Your task to perform on an android device: open app "PUBG MOBILE" (install if not already installed) and enter user name: "phenomenologically@gmail.com" and password: "artillery" Image 0: 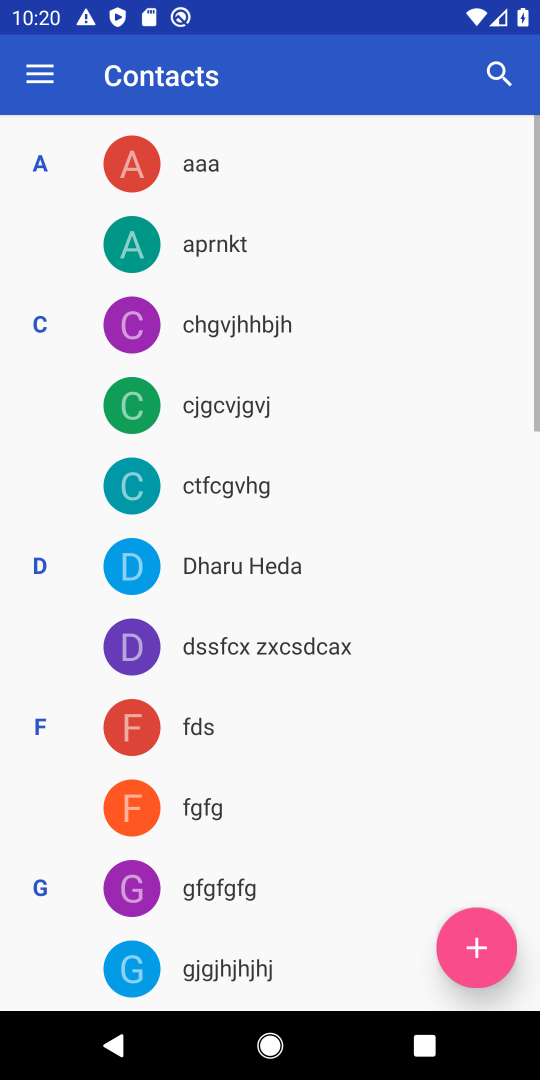
Step 0: press home button
Your task to perform on an android device: open app "PUBG MOBILE" (install if not already installed) and enter user name: "phenomenologically@gmail.com" and password: "artillery" Image 1: 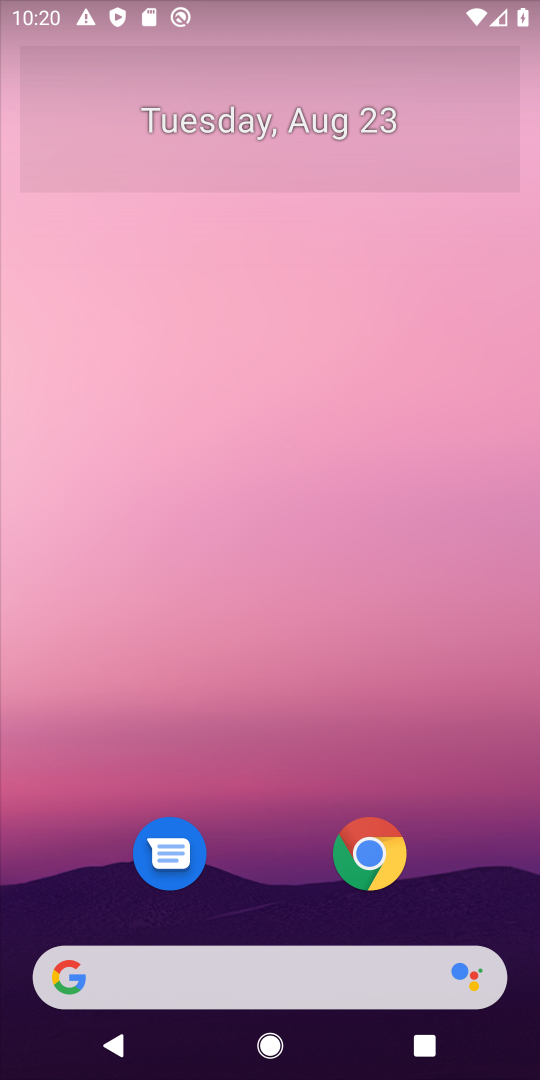
Step 1: drag from (302, 850) to (461, 150)
Your task to perform on an android device: open app "PUBG MOBILE" (install if not already installed) and enter user name: "phenomenologically@gmail.com" and password: "artillery" Image 2: 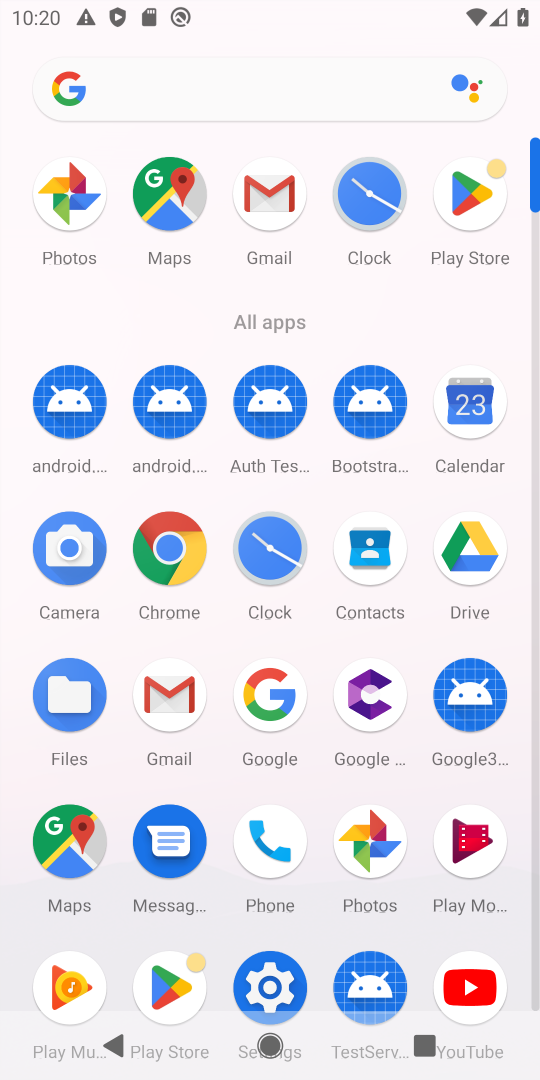
Step 2: click (440, 202)
Your task to perform on an android device: open app "PUBG MOBILE" (install if not already installed) and enter user name: "phenomenologically@gmail.com" and password: "artillery" Image 3: 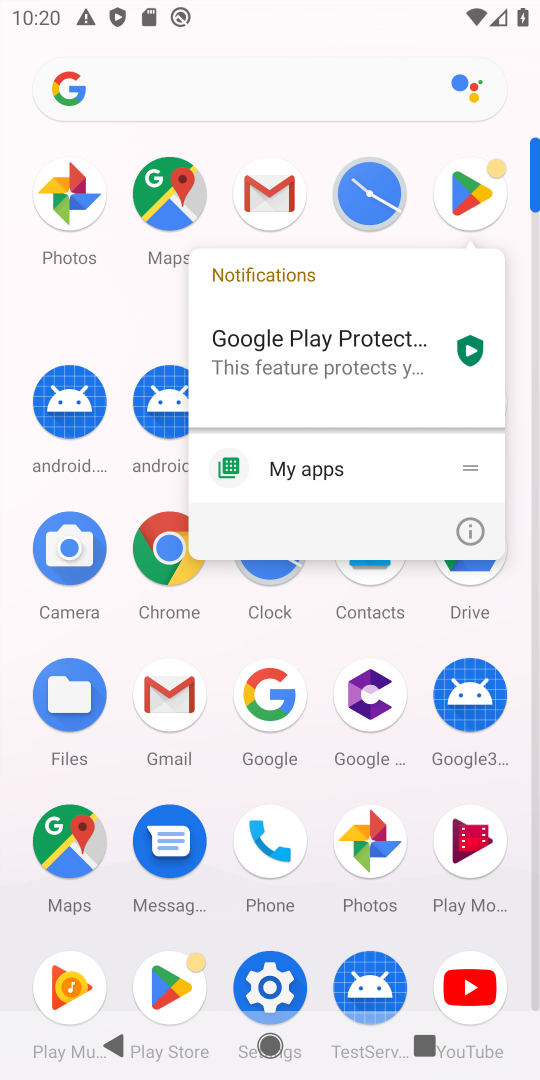
Step 3: click (446, 206)
Your task to perform on an android device: open app "PUBG MOBILE" (install if not already installed) and enter user name: "phenomenologically@gmail.com" and password: "artillery" Image 4: 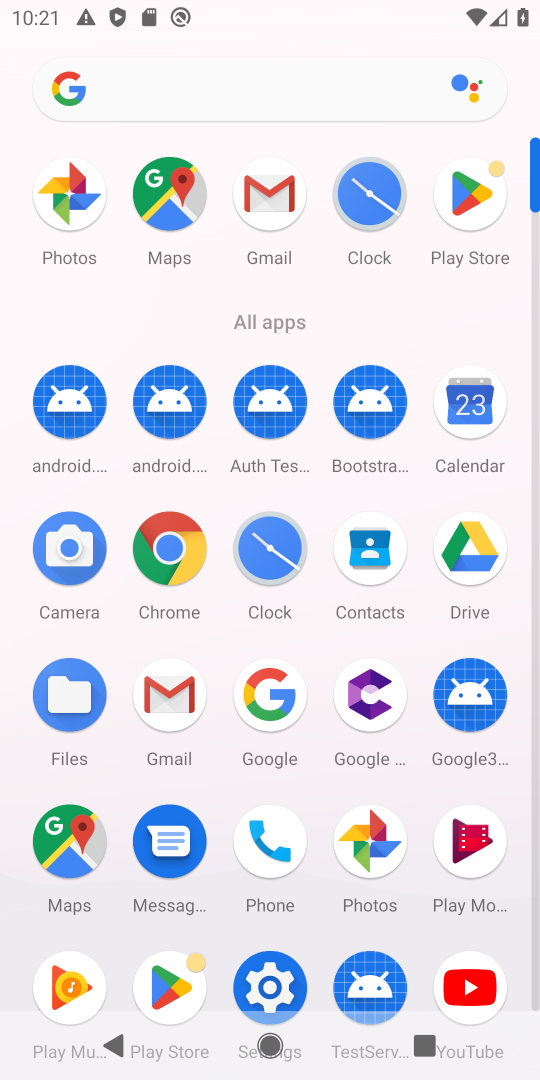
Step 4: click (458, 207)
Your task to perform on an android device: open app "PUBG MOBILE" (install if not already installed) and enter user name: "phenomenologically@gmail.com" and password: "artillery" Image 5: 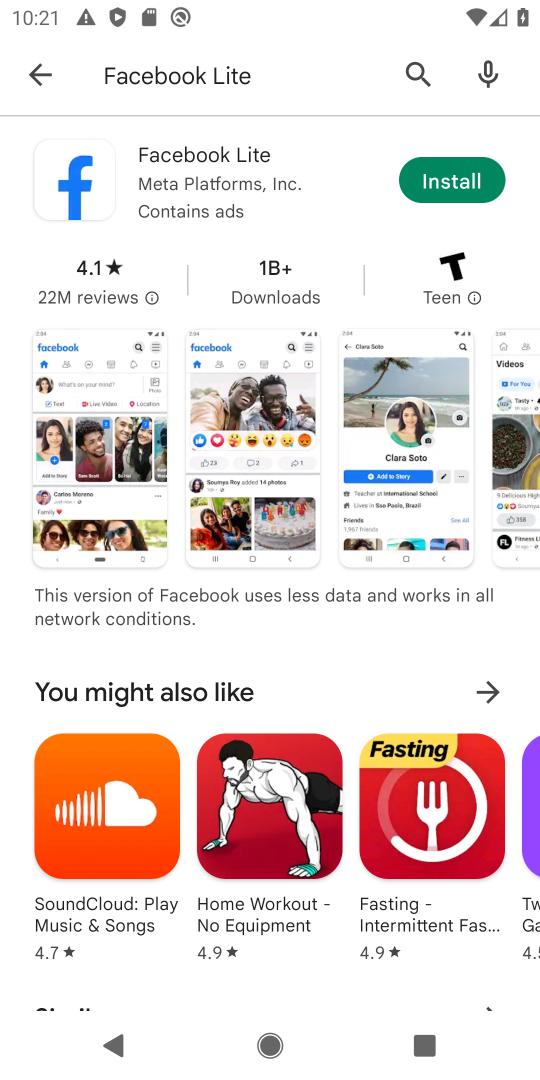
Step 5: press back button
Your task to perform on an android device: open app "PUBG MOBILE" (install if not already installed) and enter user name: "phenomenologically@gmail.com" and password: "artillery" Image 6: 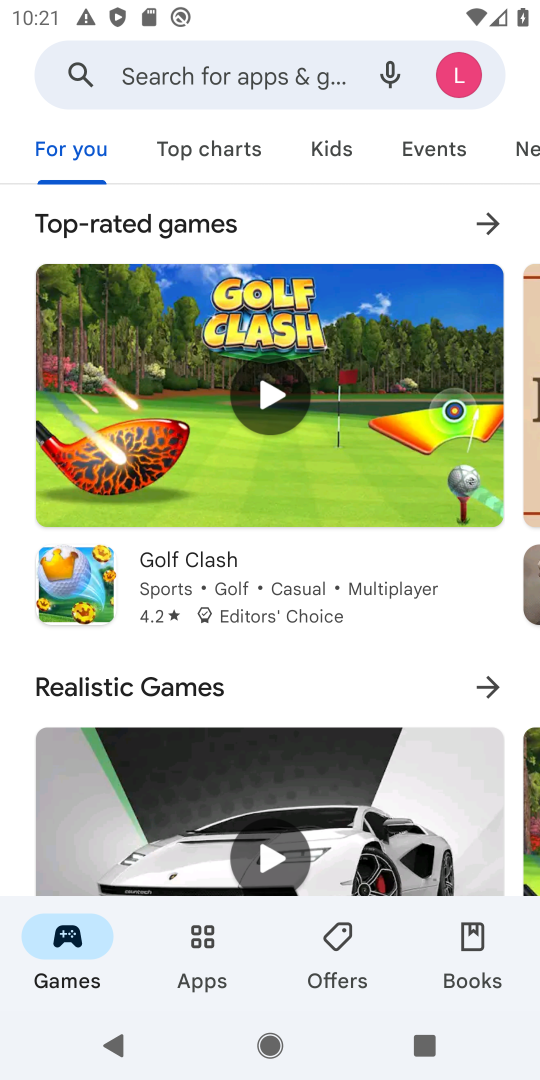
Step 6: click (297, 67)
Your task to perform on an android device: open app "PUBG MOBILE" (install if not already installed) and enter user name: "phenomenologically@gmail.com" and password: "artillery" Image 7: 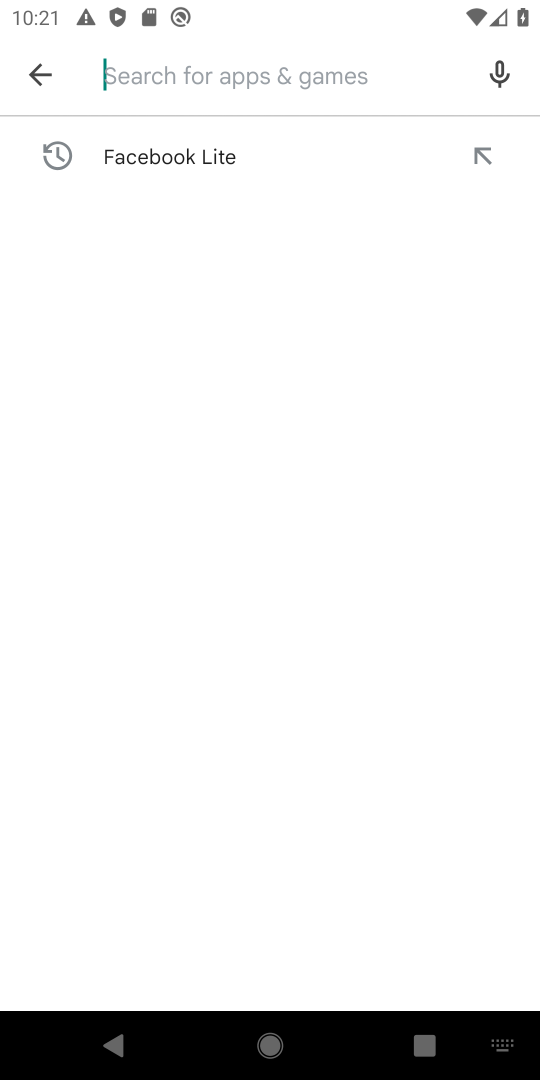
Step 7: type "PUBG MOBILE"
Your task to perform on an android device: open app "PUBG MOBILE" (install if not already installed) and enter user name: "phenomenologically@gmail.com" and password: "artillery" Image 8: 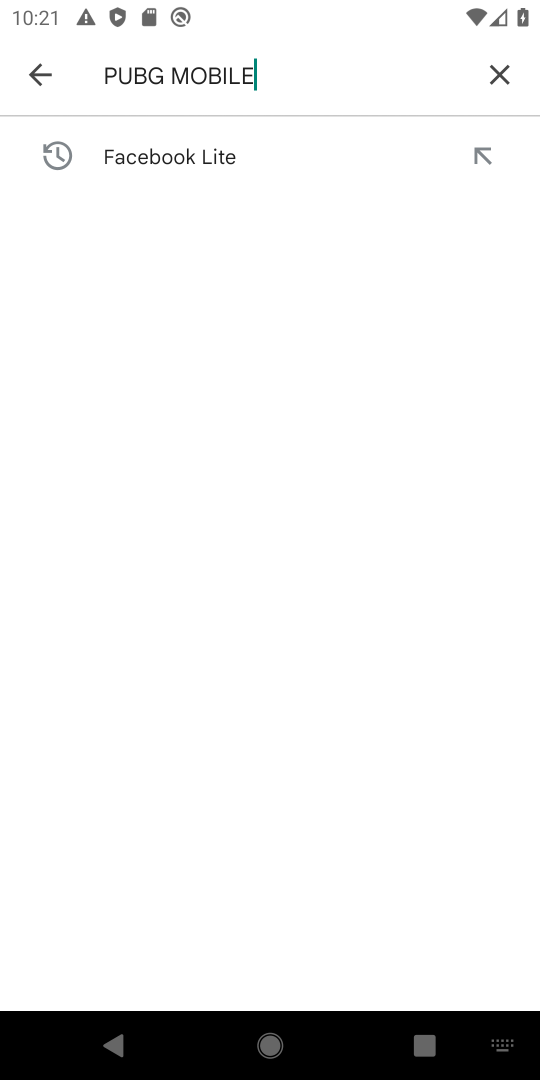
Step 8: press enter
Your task to perform on an android device: open app "PUBG MOBILE" (install if not already installed) and enter user name: "phenomenologically@gmail.com" and password: "artillery" Image 9: 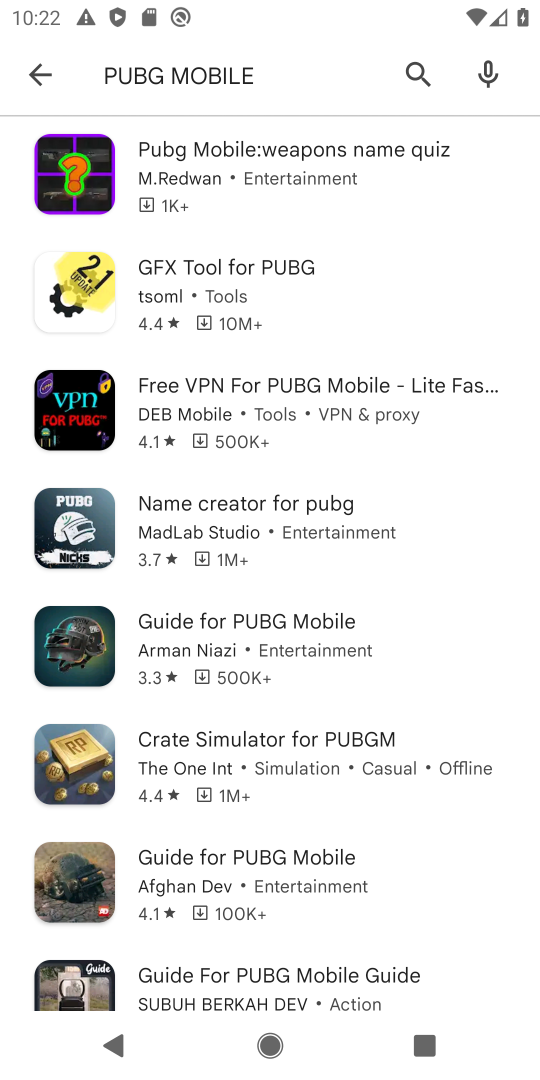
Step 9: click (178, 196)
Your task to perform on an android device: open app "PUBG MOBILE" (install if not already installed) and enter user name: "phenomenologically@gmail.com" and password: "artillery" Image 10: 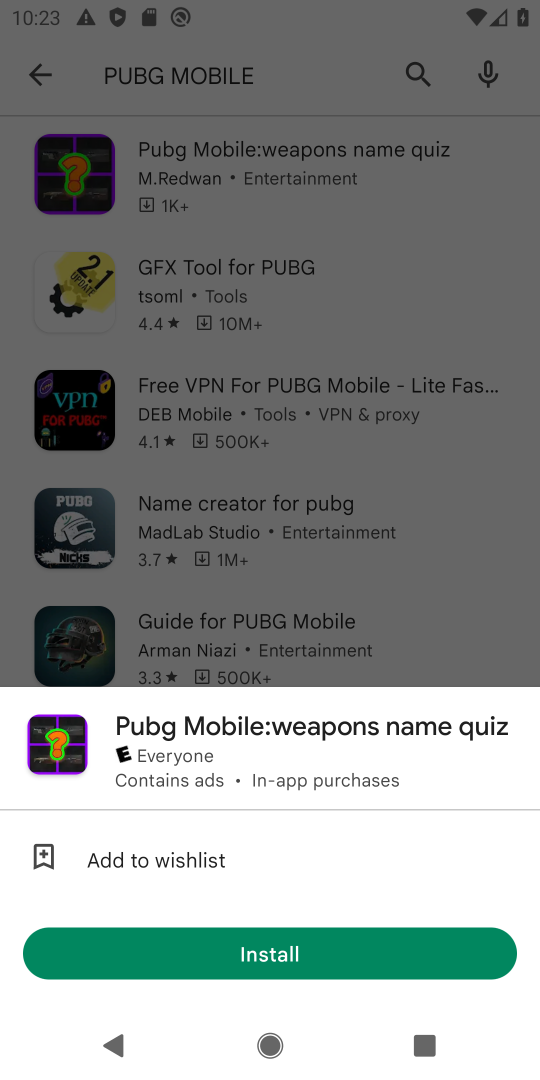
Step 10: click (274, 950)
Your task to perform on an android device: open app "PUBG MOBILE" (install if not already installed) and enter user name: "phenomenologically@gmail.com" and password: "artillery" Image 11: 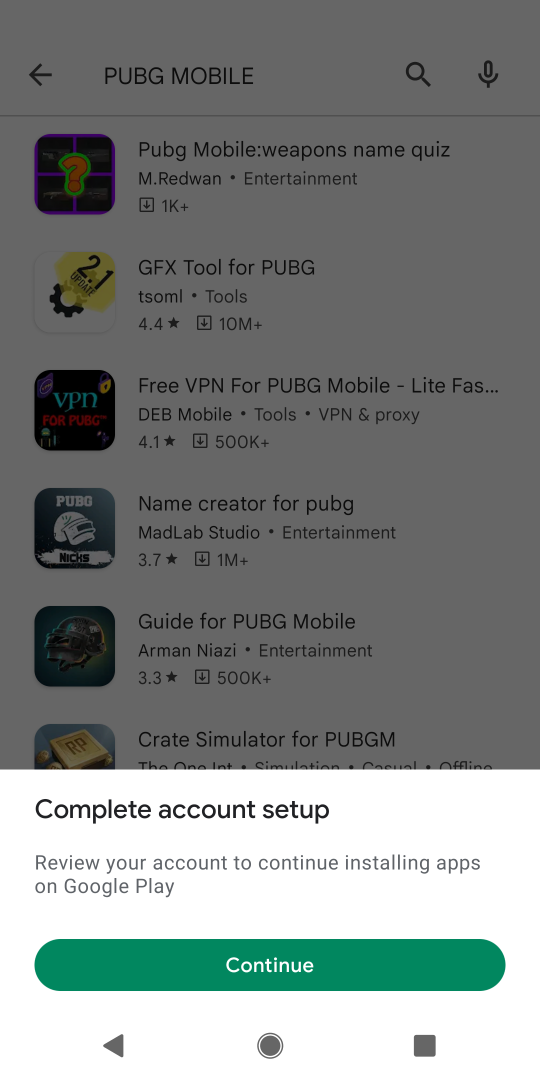
Step 11: click (269, 965)
Your task to perform on an android device: open app "PUBG MOBILE" (install if not already installed) and enter user name: "phenomenologically@gmail.com" and password: "artillery" Image 12: 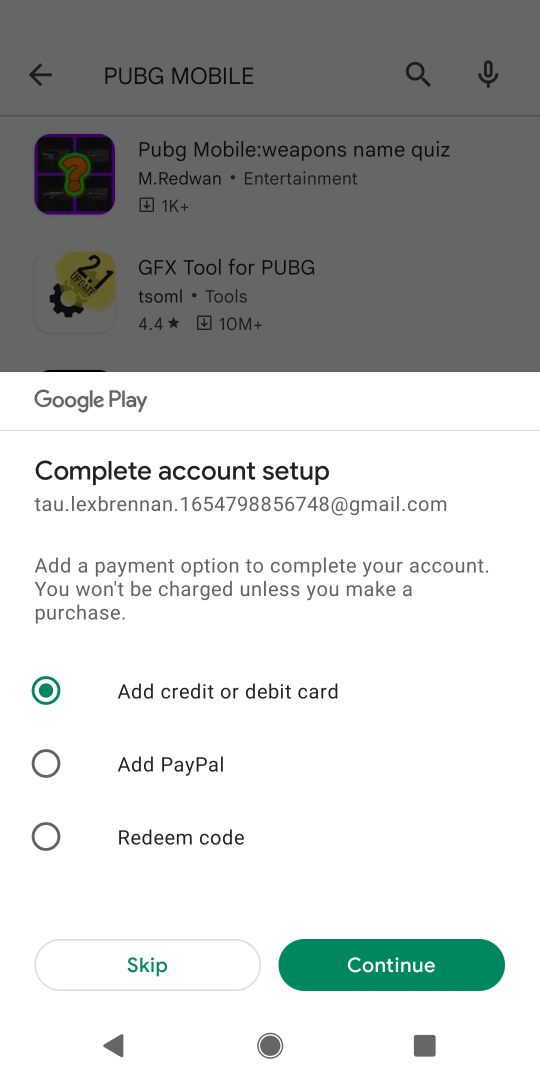
Step 12: click (155, 978)
Your task to perform on an android device: open app "PUBG MOBILE" (install if not already installed) and enter user name: "phenomenologically@gmail.com" and password: "artillery" Image 13: 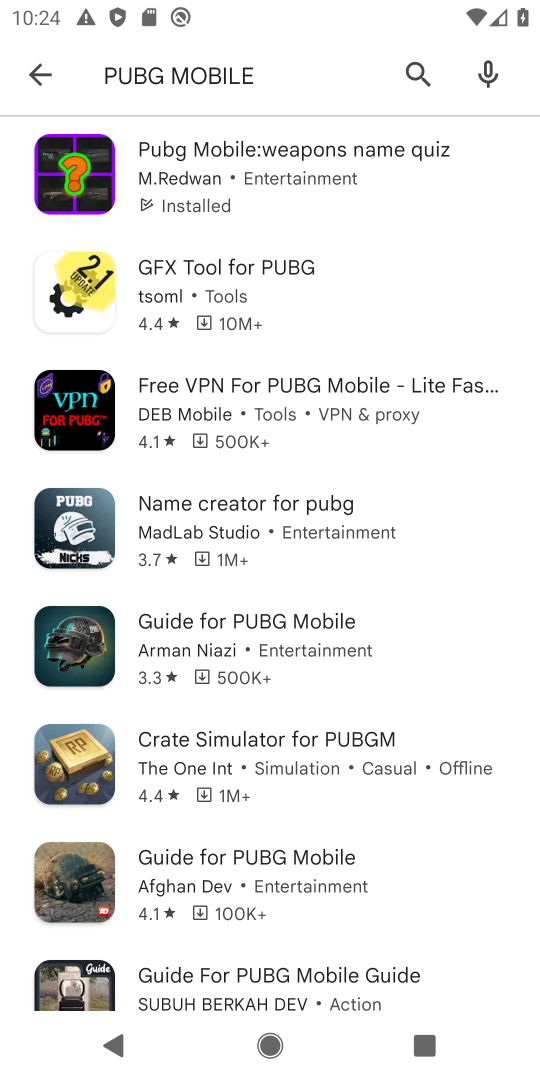
Step 13: click (158, 169)
Your task to perform on an android device: open app "PUBG MOBILE" (install if not already installed) and enter user name: "phenomenologically@gmail.com" and password: "artillery" Image 14: 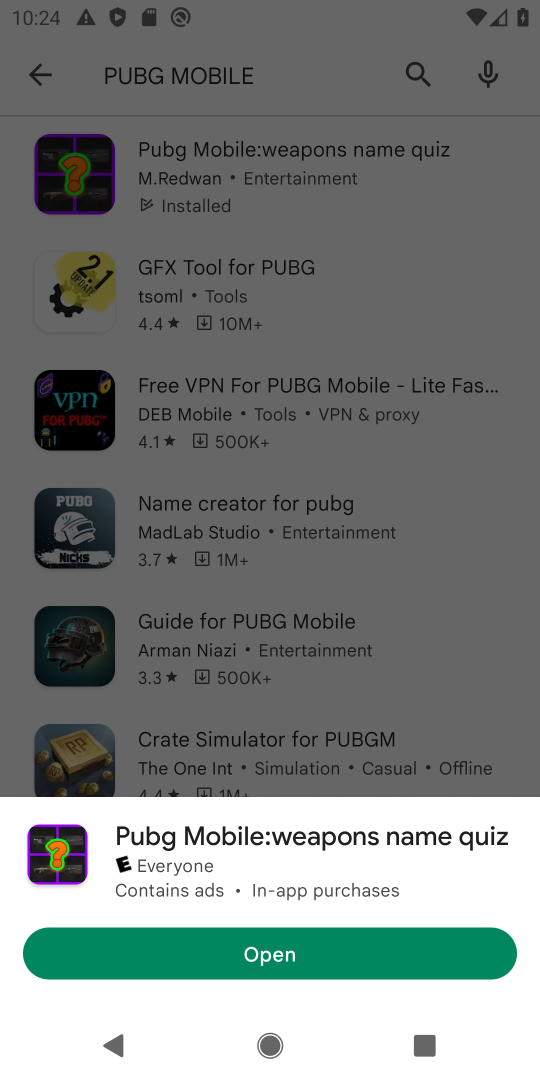
Step 14: click (263, 960)
Your task to perform on an android device: open app "PUBG MOBILE" (install if not already installed) and enter user name: "phenomenologically@gmail.com" and password: "artillery" Image 15: 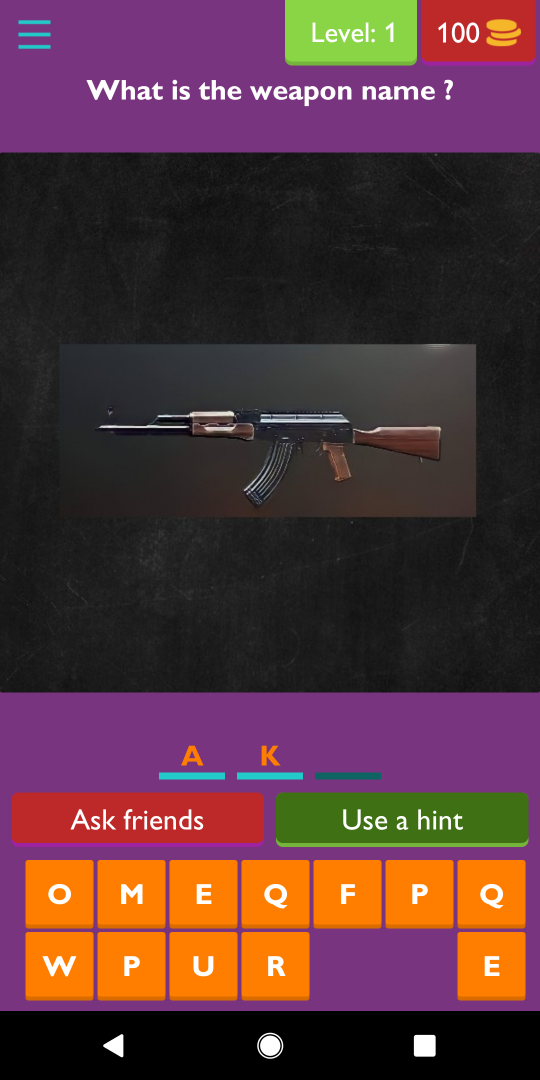
Step 15: task complete